Your task to perform on an android device: toggle notifications settings in the gmail app Image 0: 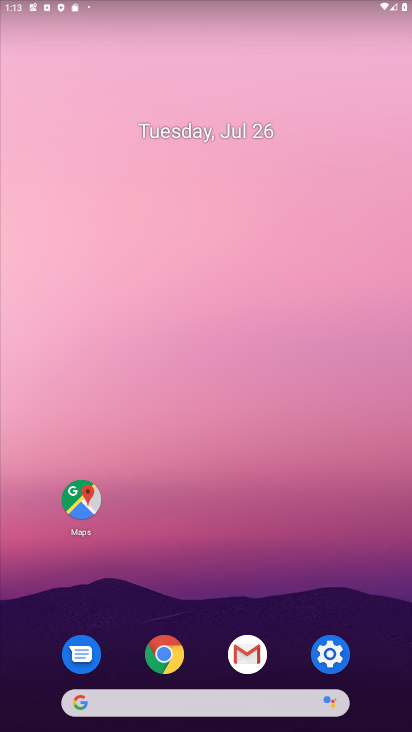
Step 0: click (245, 662)
Your task to perform on an android device: toggle notifications settings in the gmail app Image 1: 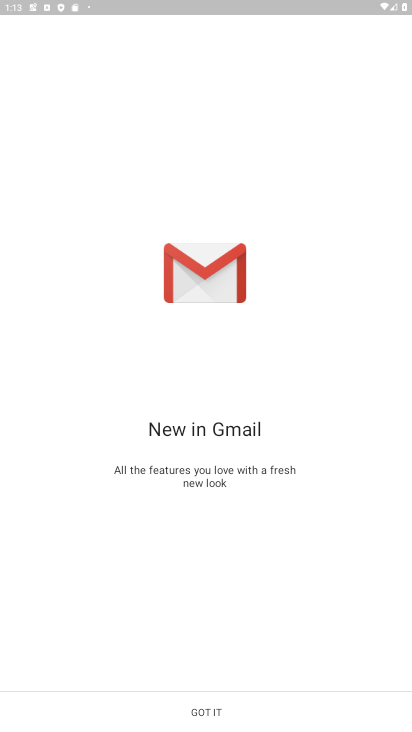
Step 1: click (235, 713)
Your task to perform on an android device: toggle notifications settings in the gmail app Image 2: 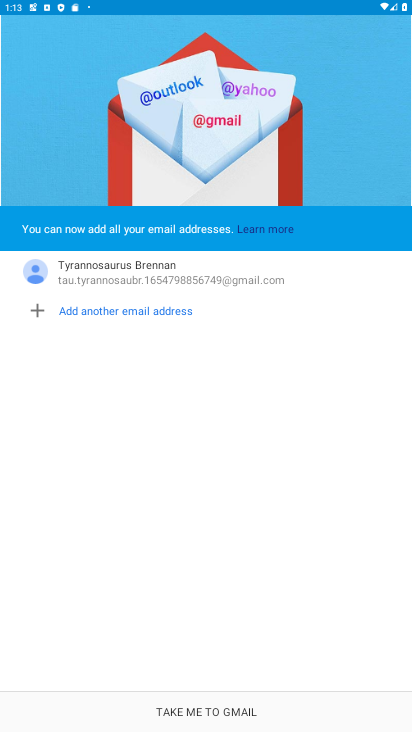
Step 2: click (233, 699)
Your task to perform on an android device: toggle notifications settings in the gmail app Image 3: 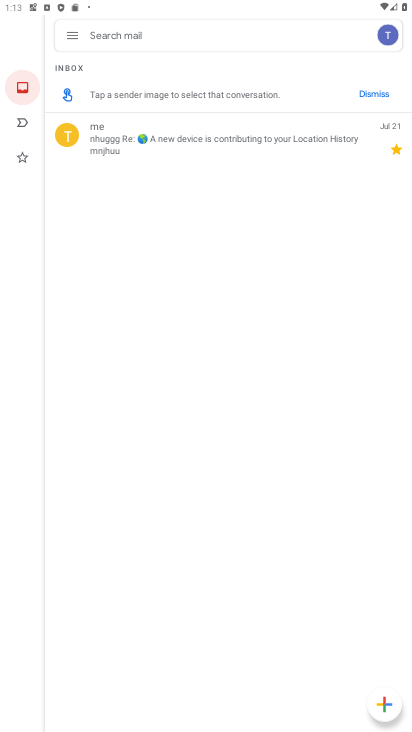
Step 3: click (81, 39)
Your task to perform on an android device: toggle notifications settings in the gmail app Image 4: 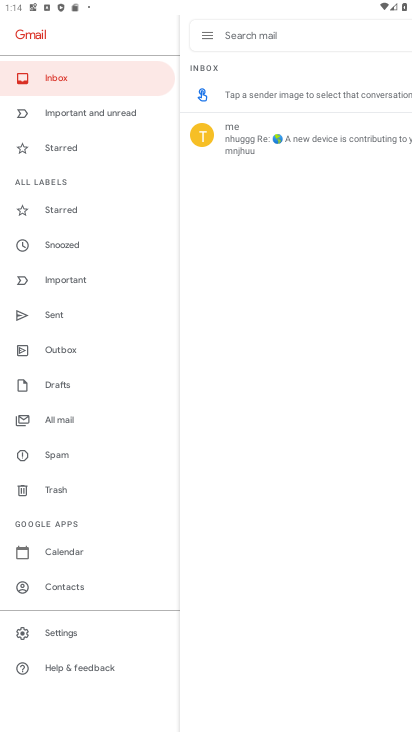
Step 4: click (87, 633)
Your task to perform on an android device: toggle notifications settings in the gmail app Image 5: 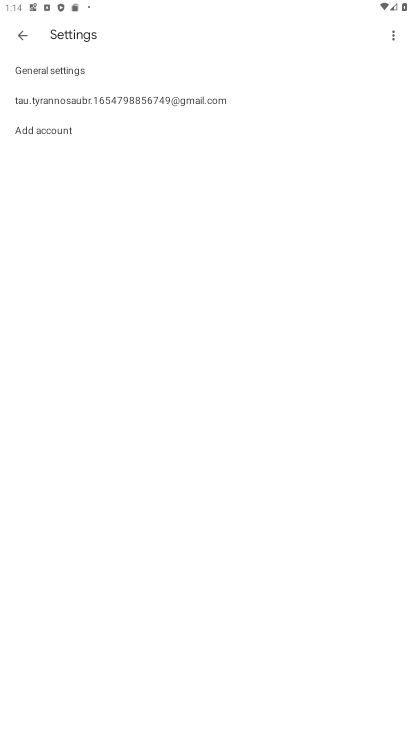
Step 5: click (77, 101)
Your task to perform on an android device: toggle notifications settings in the gmail app Image 6: 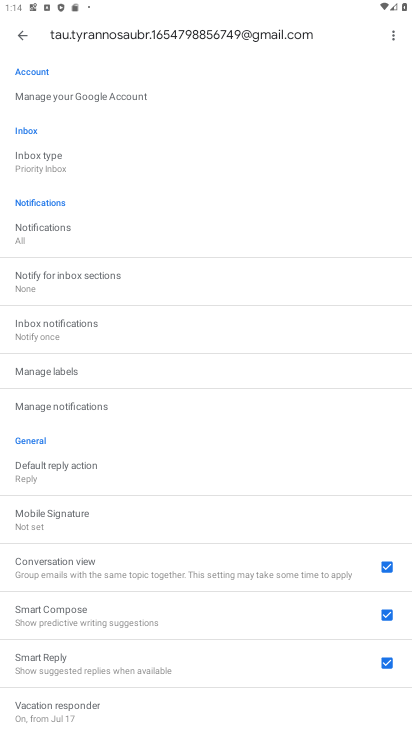
Step 6: click (68, 244)
Your task to perform on an android device: toggle notifications settings in the gmail app Image 7: 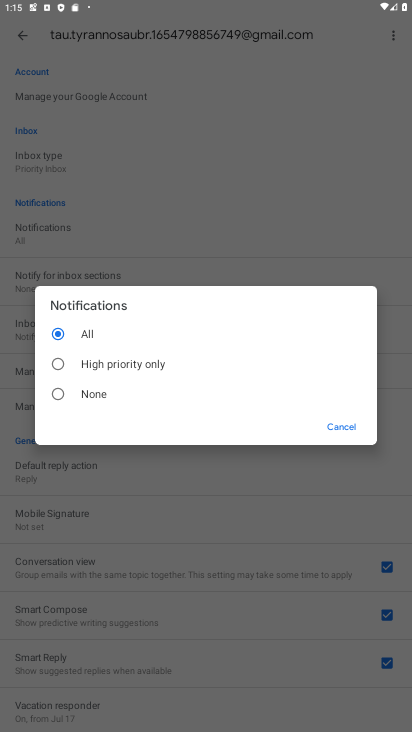
Step 7: task complete